Your task to perform on an android device: open sync settings in chrome Image 0: 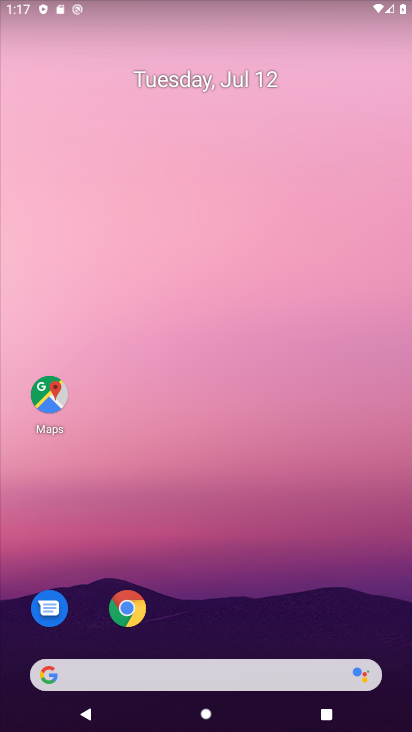
Step 0: click (121, 608)
Your task to perform on an android device: open sync settings in chrome Image 1: 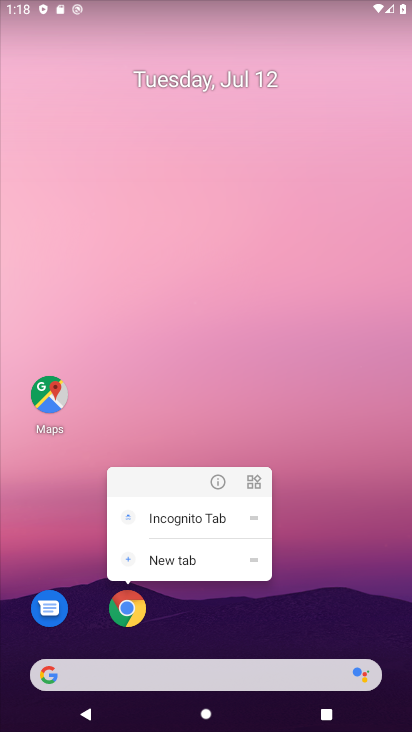
Step 1: click (134, 608)
Your task to perform on an android device: open sync settings in chrome Image 2: 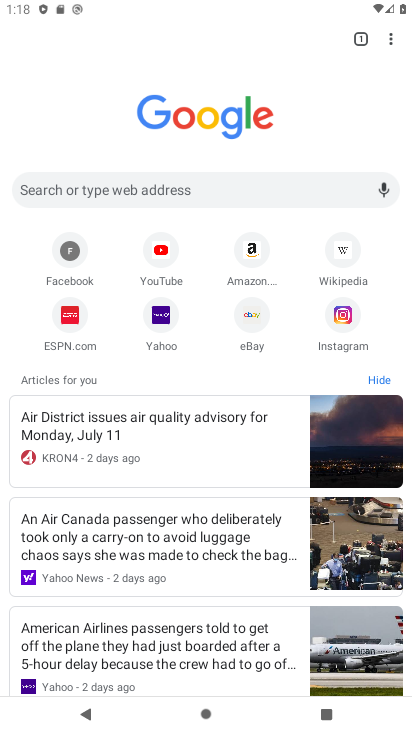
Step 2: click (395, 35)
Your task to perform on an android device: open sync settings in chrome Image 3: 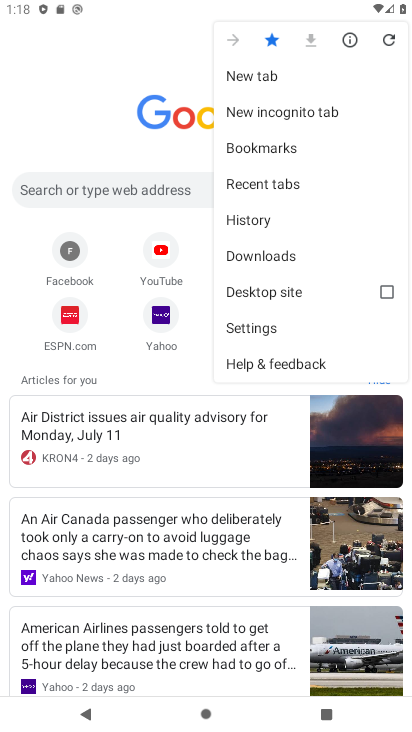
Step 3: click (290, 328)
Your task to perform on an android device: open sync settings in chrome Image 4: 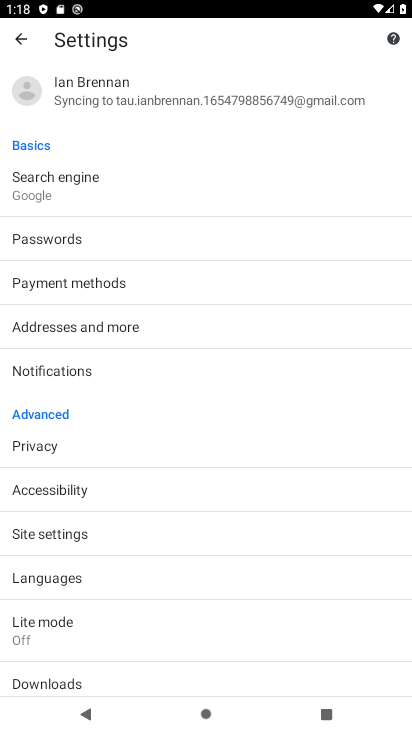
Step 4: click (118, 99)
Your task to perform on an android device: open sync settings in chrome Image 5: 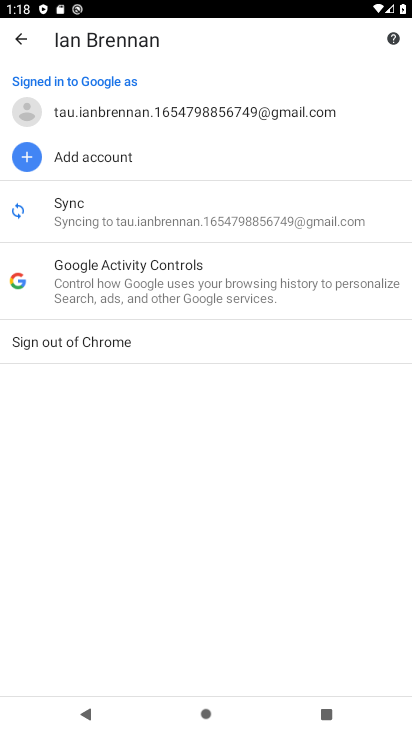
Step 5: click (115, 227)
Your task to perform on an android device: open sync settings in chrome Image 6: 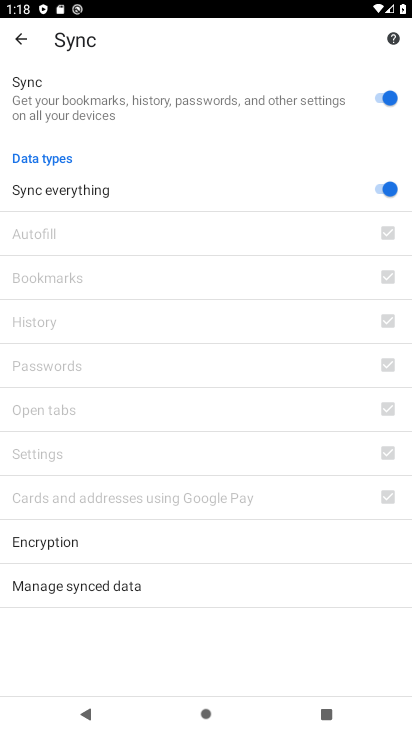
Step 6: task complete